Your task to perform on an android device: turn on the 12-hour format for clock Image 0: 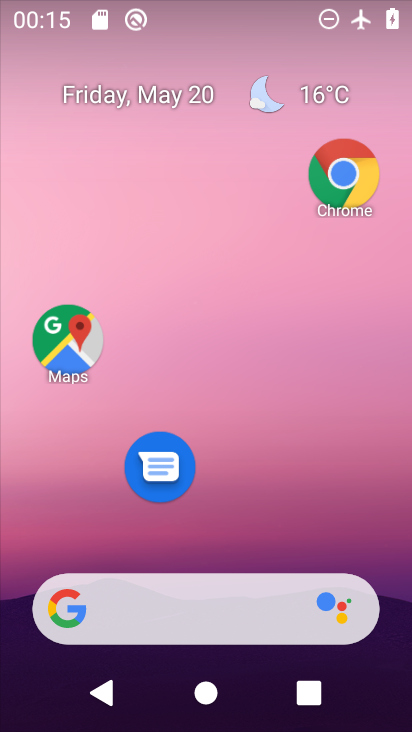
Step 0: drag from (240, 561) to (259, 289)
Your task to perform on an android device: turn on the 12-hour format for clock Image 1: 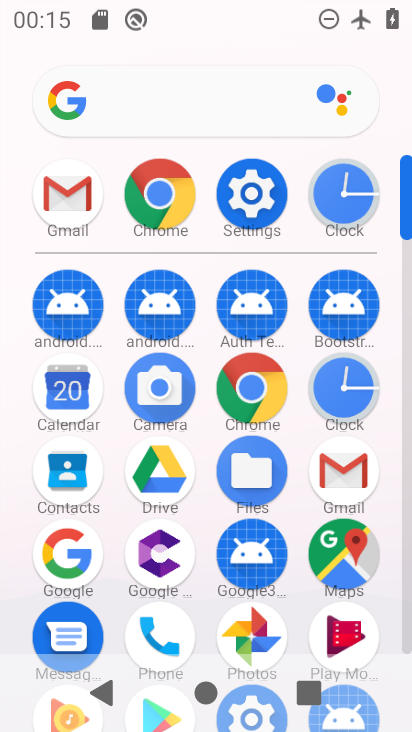
Step 1: click (340, 379)
Your task to perform on an android device: turn on the 12-hour format for clock Image 2: 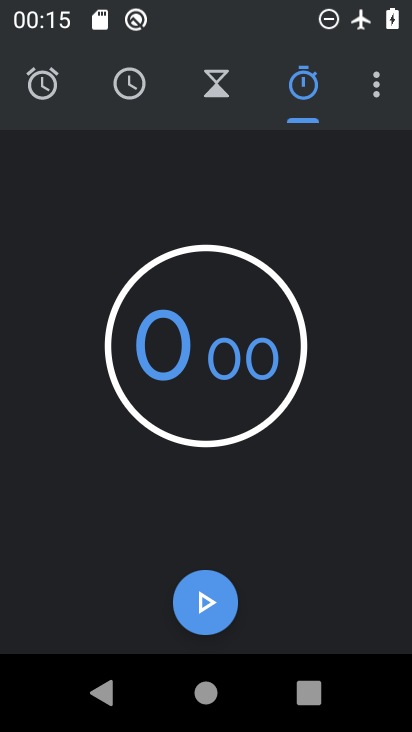
Step 2: click (381, 82)
Your task to perform on an android device: turn on the 12-hour format for clock Image 3: 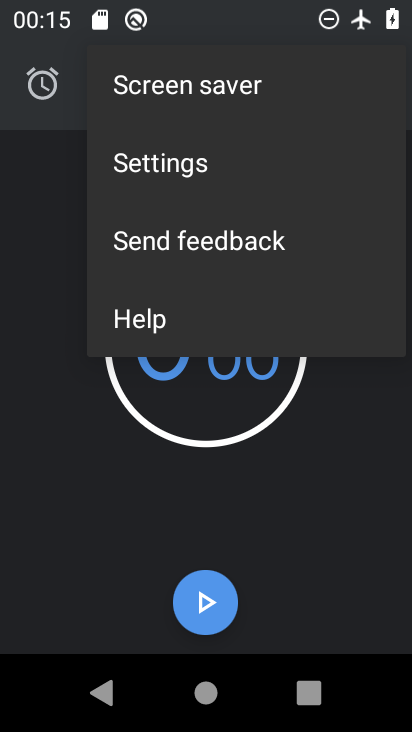
Step 3: click (197, 175)
Your task to perform on an android device: turn on the 12-hour format for clock Image 4: 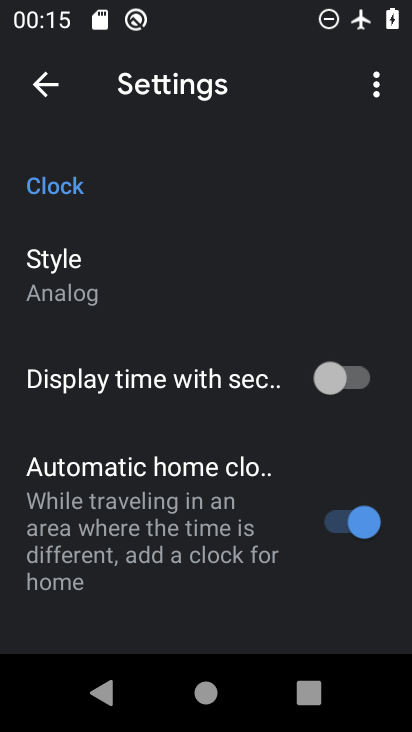
Step 4: drag from (184, 467) to (175, 222)
Your task to perform on an android device: turn on the 12-hour format for clock Image 5: 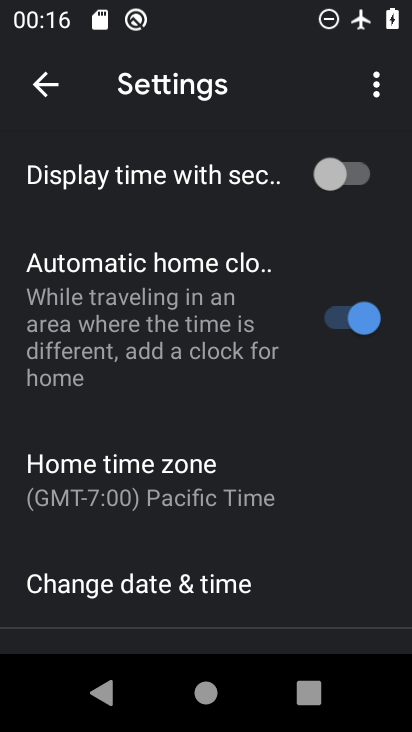
Step 5: drag from (171, 510) to (179, 214)
Your task to perform on an android device: turn on the 12-hour format for clock Image 6: 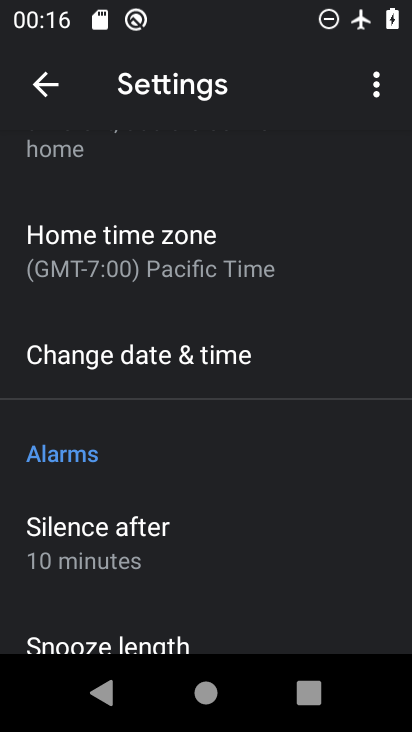
Step 6: drag from (138, 548) to (178, 492)
Your task to perform on an android device: turn on the 12-hour format for clock Image 7: 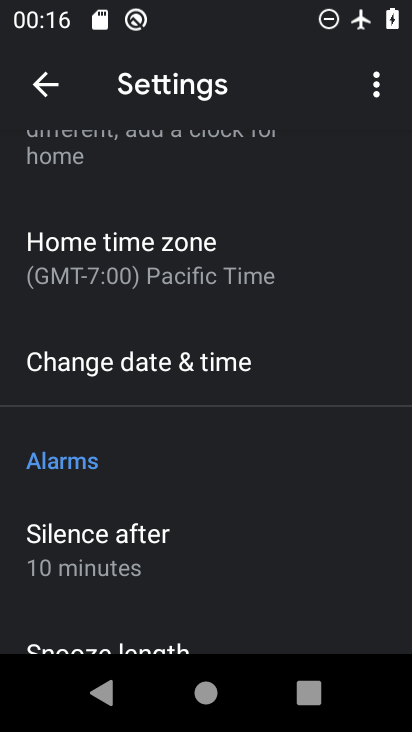
Step 7: click (151, 375)
Your task to perform on an android device: turn on the 12-hour format for clock Image 8: 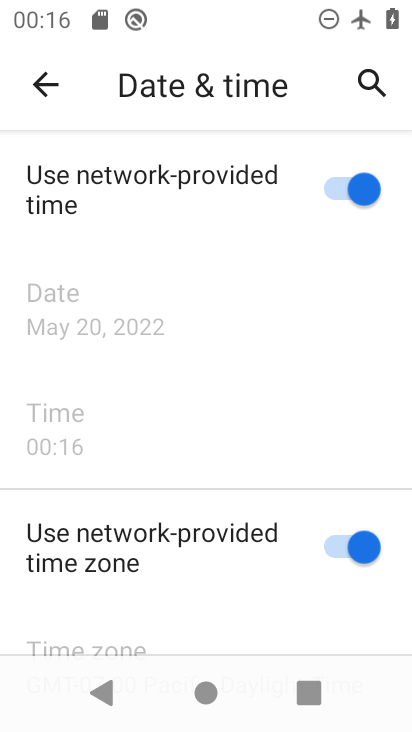
Step 8: task complete